Your task to perform on an android device: Toggle the flashlight Image 0: 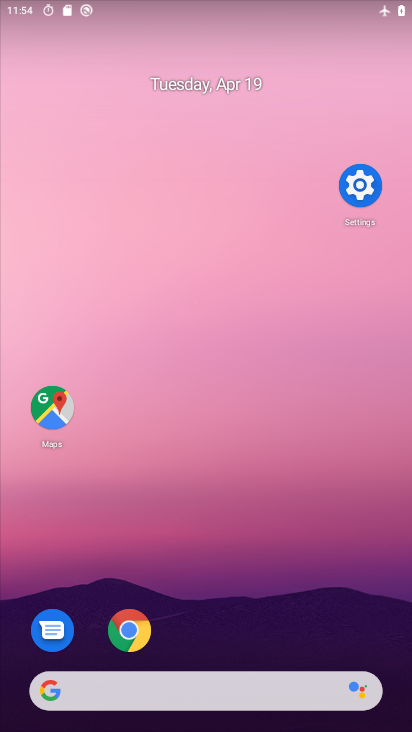
Step 0: drag from (222, 264) to (99, 721)
Your task to perform on an android device: Toggle the flashlight Image 1: 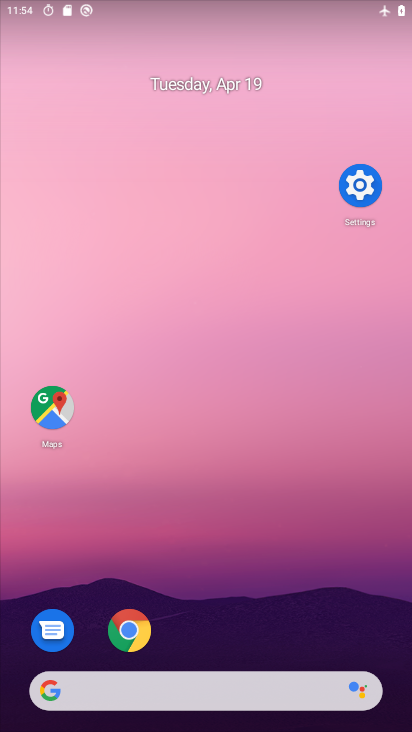
Step 1: task complete